Your task to perform on an android device: Turn on the flashlight Image 0: 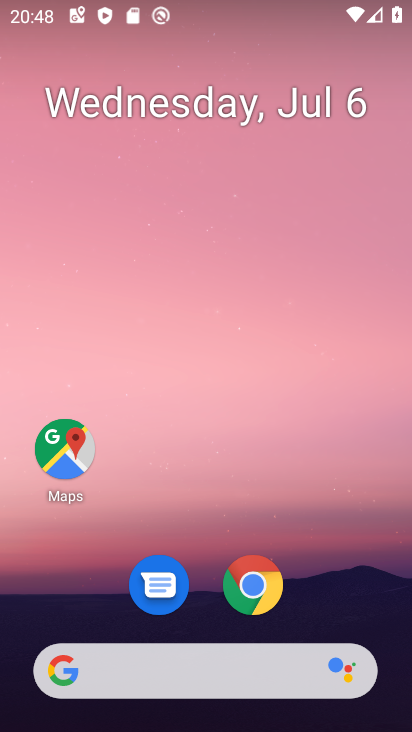
Step 0: drag from (213, 531) to (224, 44)
Your task to perform on an android device: Turn on the flashlight Image 1: 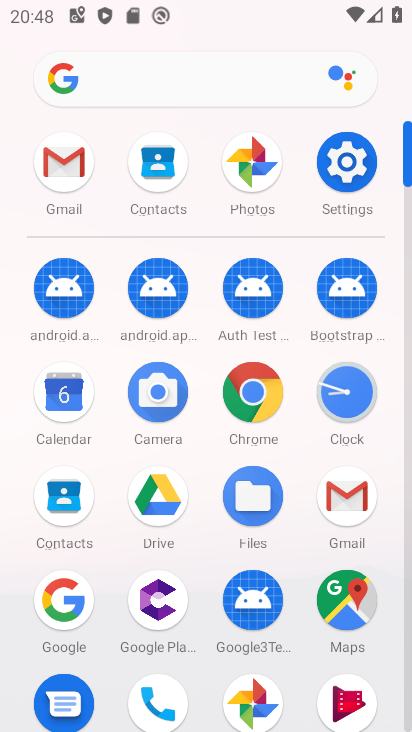
Step 1: click (339, 166)
Your task to perform on an android device: Turn on the flashlight Image 2: 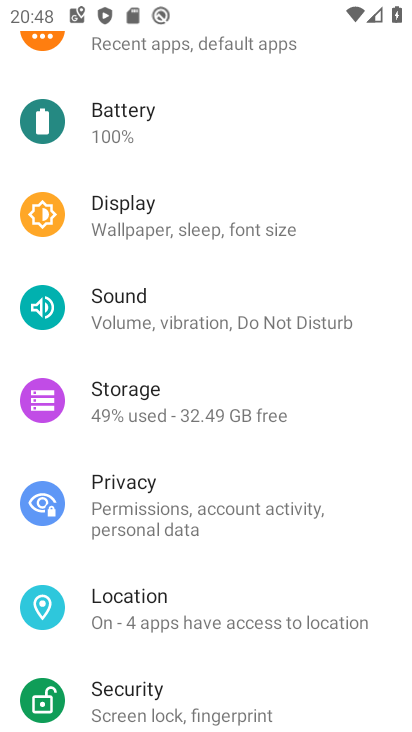
Step 2: drag from (243, 200) to (247, 488)
Your task to perform on an android device: Turn on the flashlight Image 3: 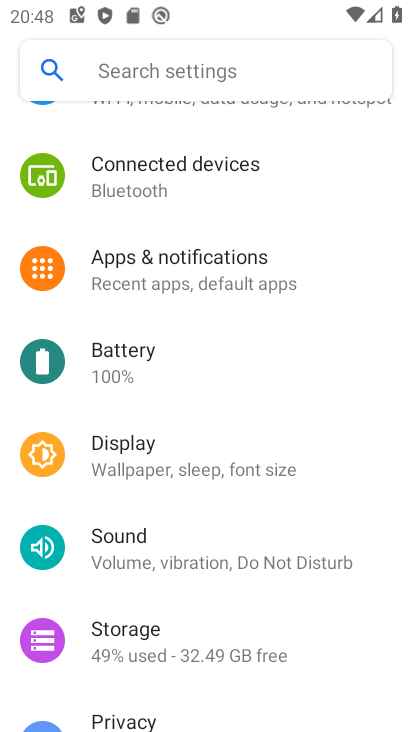
Step 3: drag from (174, 218) to (191, 514)
Your task to perform on an android device: Turn on the flashlight Image 4: 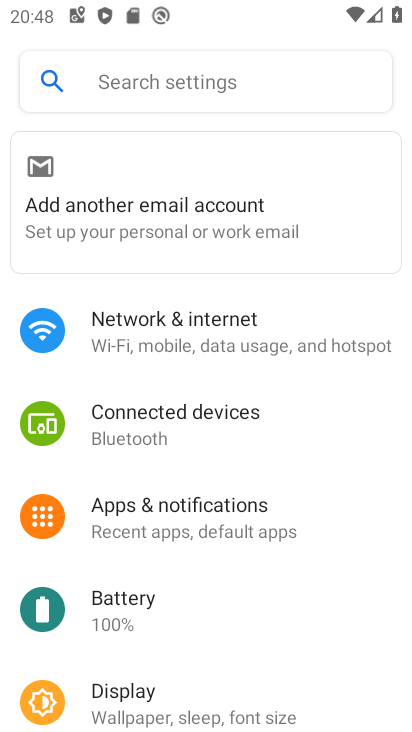
Step 4: drag from (184, 168) to (183, 390)
Your task to perform on an android device: Turn on the flashlight Image 5: 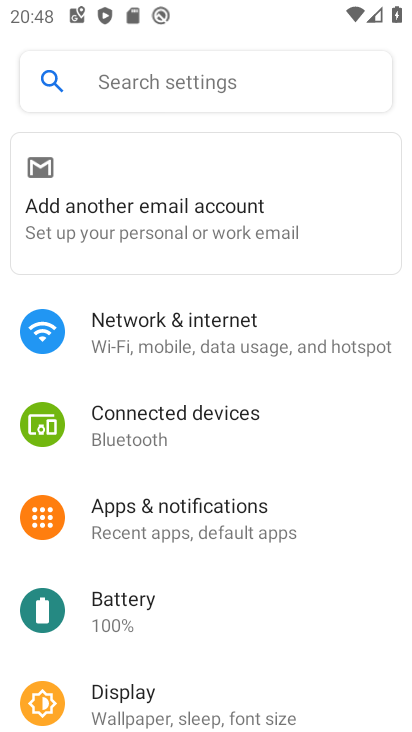
Step 5: click (265, 73)
Your task to perform on an android device: Turn on the flashlight Image 6: 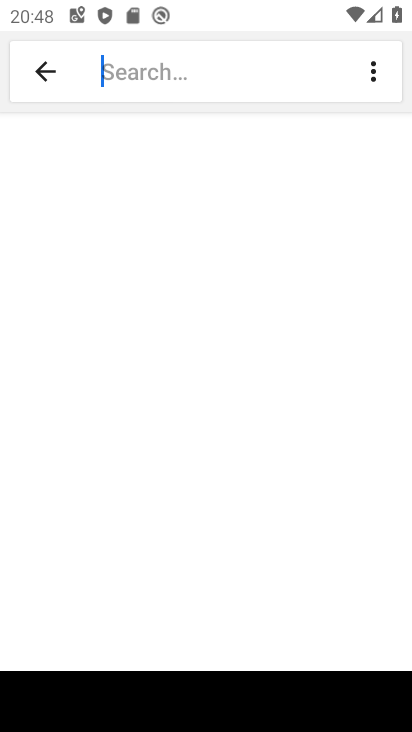
Step 6: type ""
Your task to perform on an android device: Turn on the flashlight Image 7: 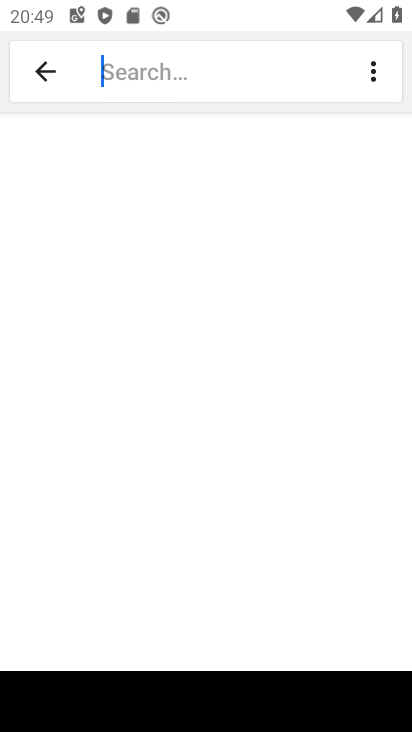
Step 7: type "Flashlight"
Your task to perform on an android device: Turn on the flashlight Image 8: 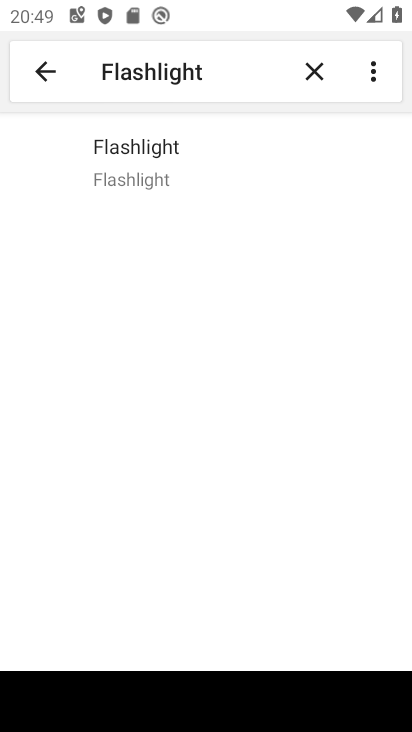
Step 8: click (141, 157)
Your task to perform on an android device: Turn on the flashlight Image 9: 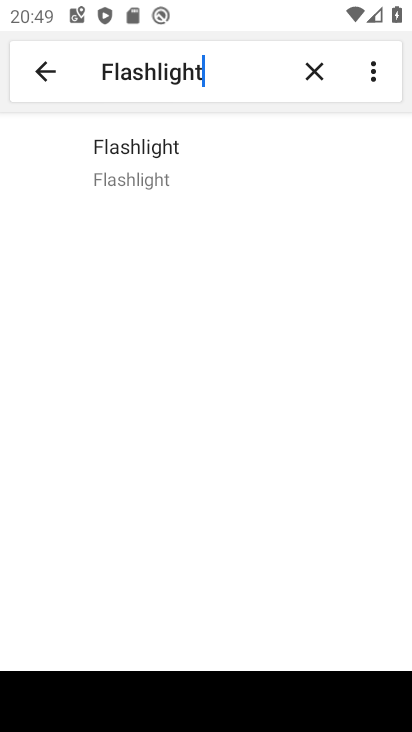
Step 9: click (141, 156)
Your task to perform on an android device: Turn on the flashlight Image 10: 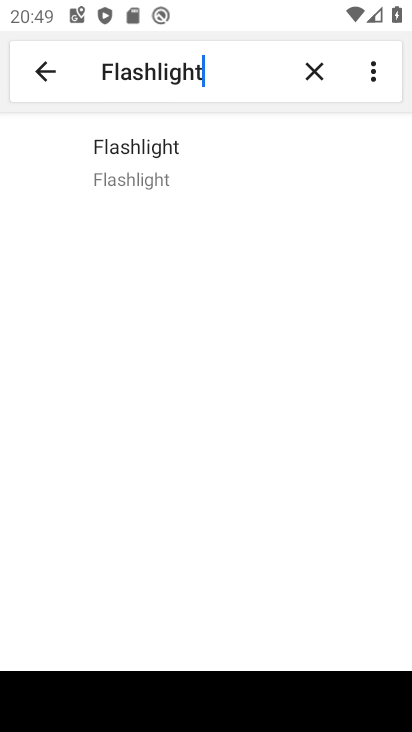
Step 10: task complete